Your task to perform on an android device: all mails in gmail Image 0: 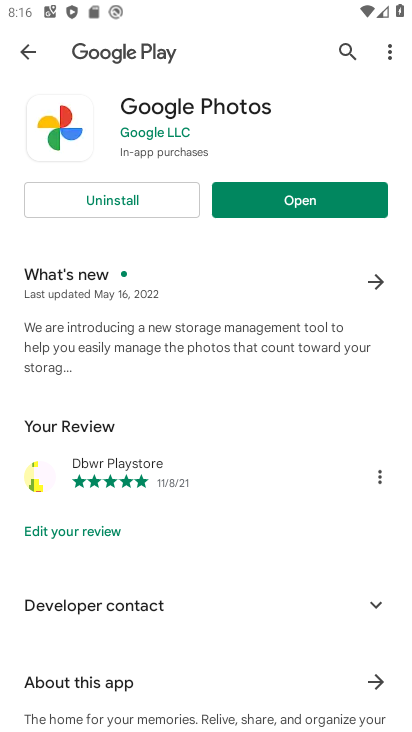
Step 0: press home button
Your task to perform on an android device: all mails in gmail Image 1: 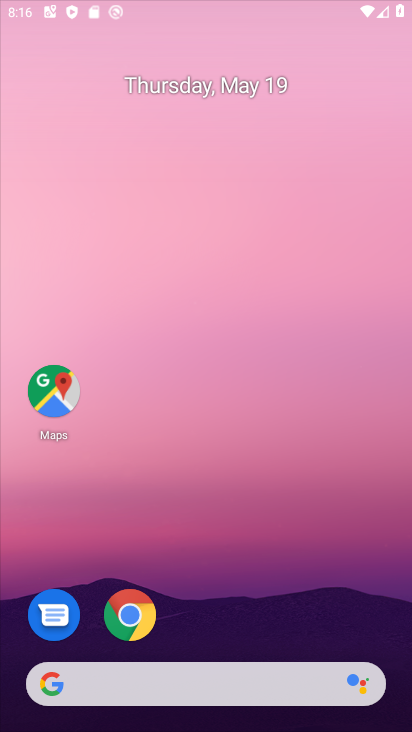
Step 1: drag from (240, 573) to (312, 61)
Your task to perform on an android device: all mails in gmail Image 2: 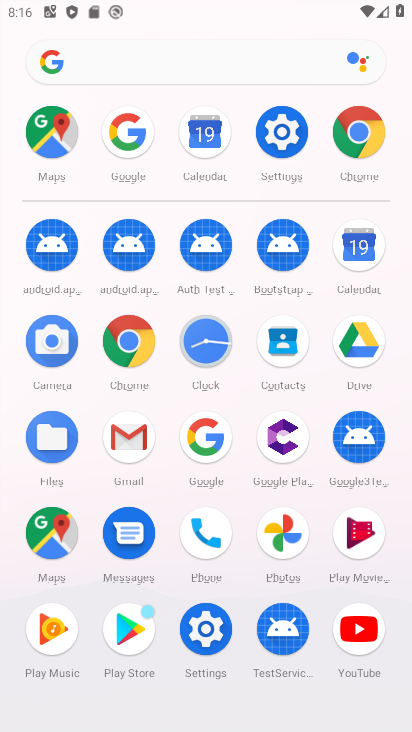
Step 2: click (124, 419)
Your task to perform on an android device: all mails in gmail Image 3: 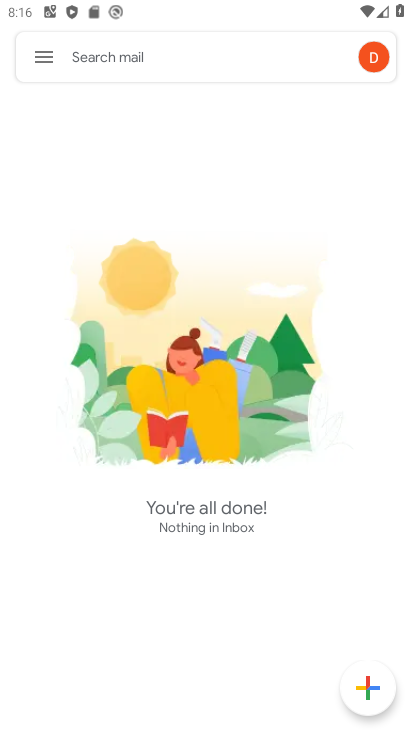
Step 3: click (39, 56)
Your task to perform on an android device: all mails in gmail Image 4: 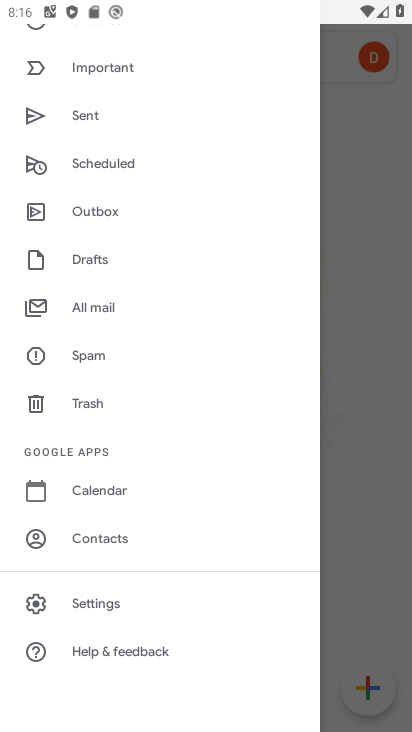
Step 4: click (93, 314)
Your task to perform on an android device: all mails in gmail Image 5: 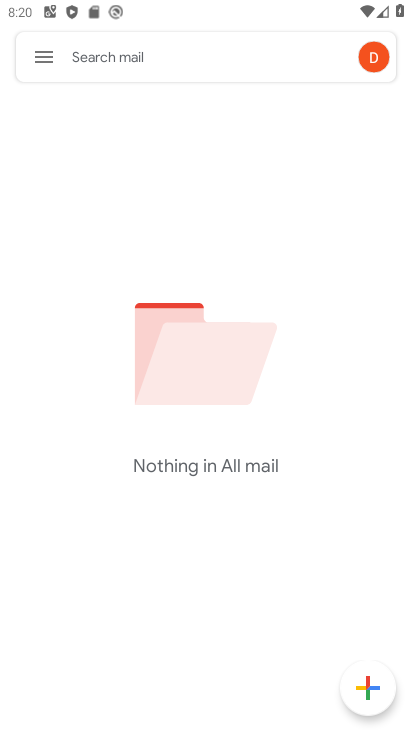
Step 5: task complete